Your task to perform on an android device: Search for seafood restaurants on Google Maps Image 0: 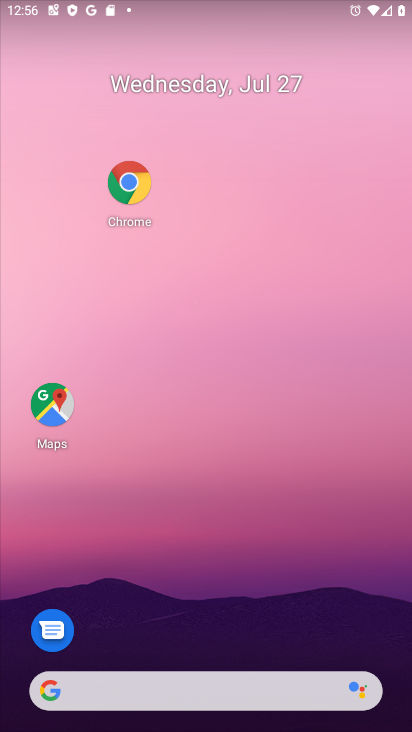
Step 0: click (65, 407)
Your task to perform on an android device: Search for seafood restaurants on Google Maps Image 1: 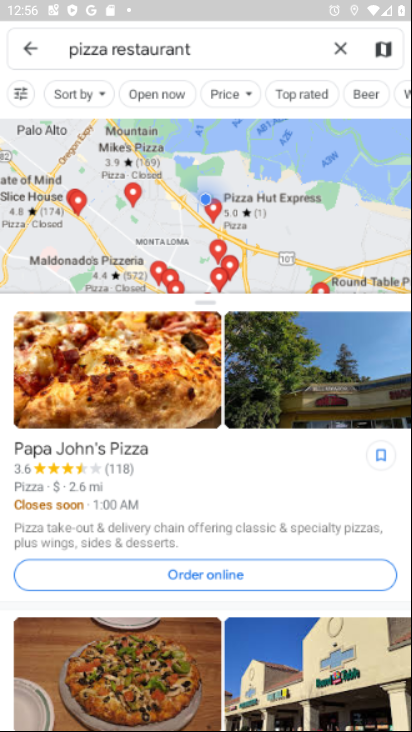
Step 1: click (335, 46)
Your task to perform on an android device: Search for seafood restaurants on Google Maps Image 2: 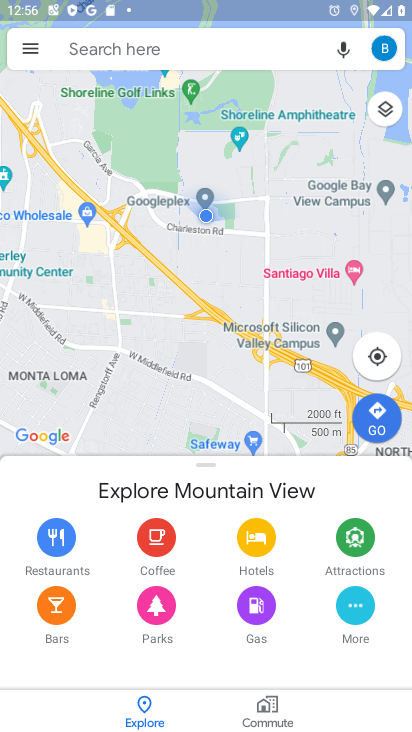
Step 2: click (266, 54)
Your task to perform on an android device: Search for seafood restaurants on Google Maps Image 3: 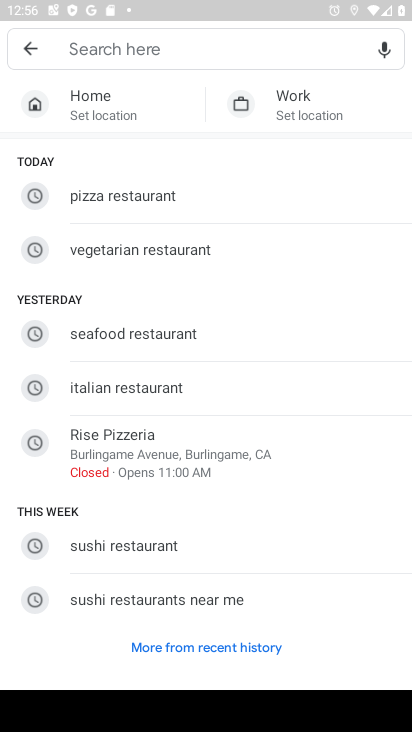
Step 3: click (152, 329)
Your task to perform on an android device: Search for seafood restaurants on Google Maps Image 4: 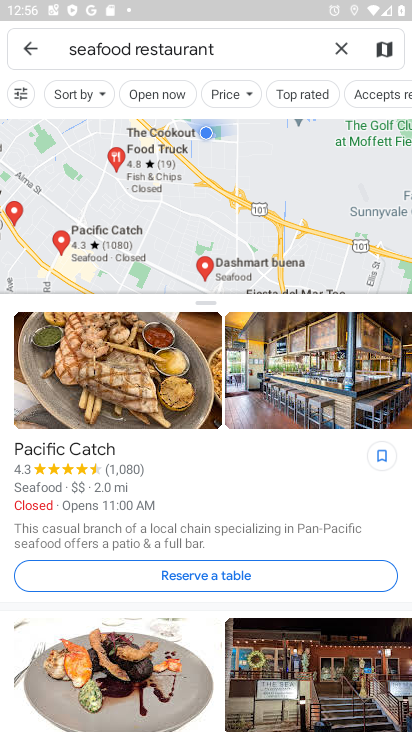
Step 4: task complete